Your task to perform on an android device: change the clock style Image 0: 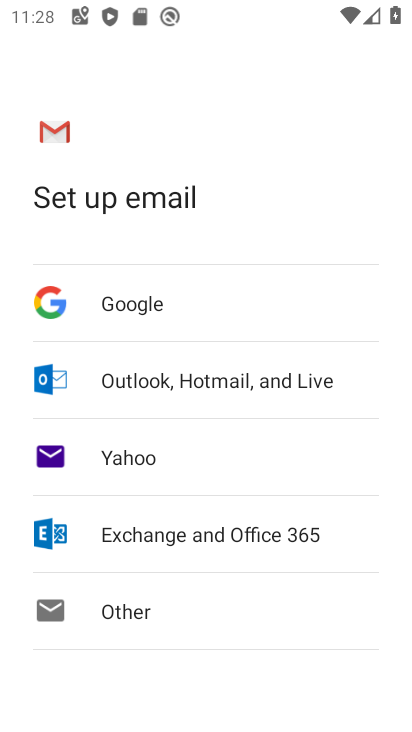
Step 0: press back button
Your task to perform on an android device: change the clock style Image 1: 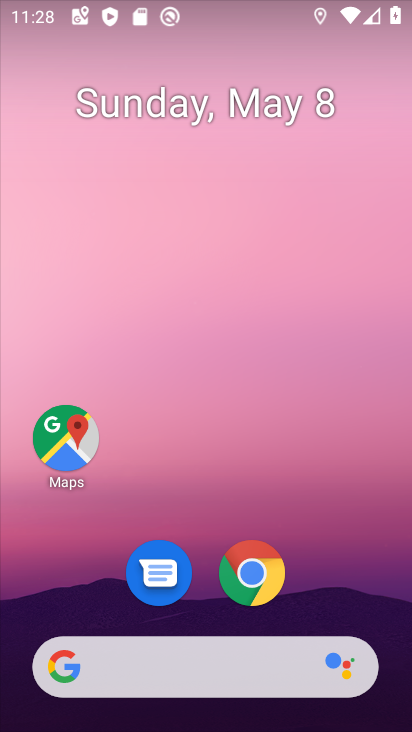
Step 1: drag from (349, 605) to (206, 20)
Your task to perform on an android device: change the clock style Image 2: 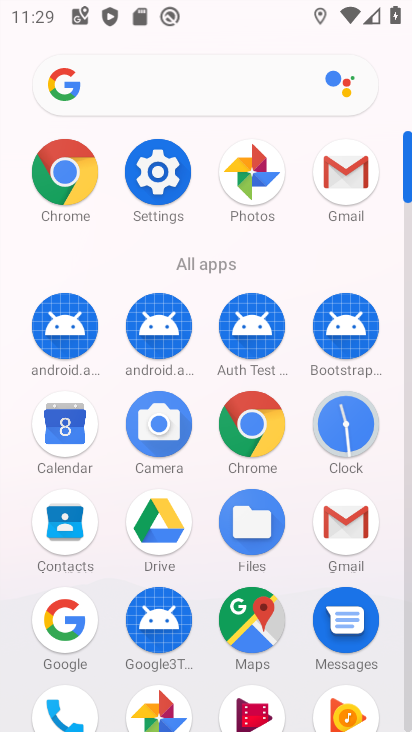
Step 2: click (345, 424)
Your task to perform on an android device: change the clock style Image 3: 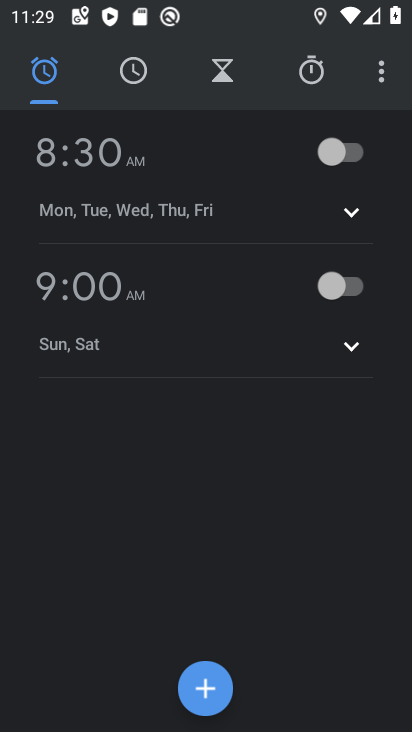
Step 3: drag from (380, 74) to (298, 144)
Your task to perform on an android device: change the clock style Image 4: 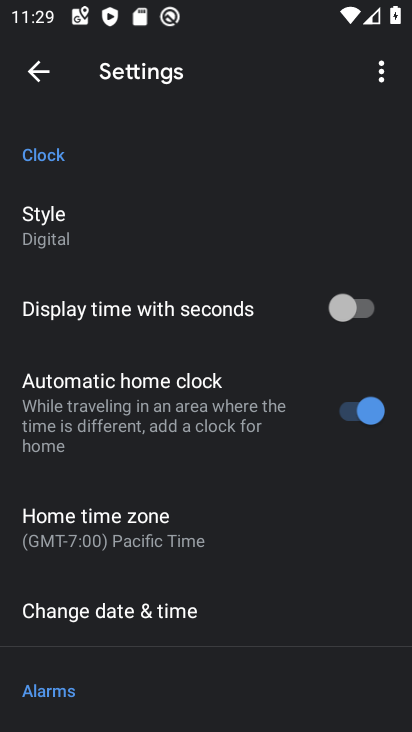
Step 4: click (126, 221)
Your task to perform on an android device: change the clock style Image 5: 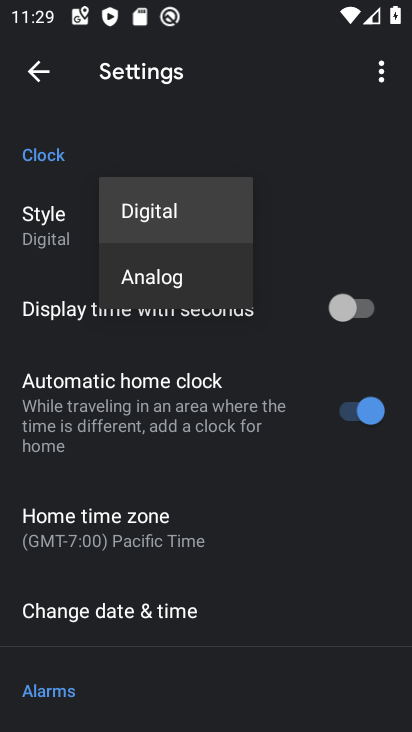
Step 5: click (150, 270)
Your task to perform on an android device: change the clock style Image 6: 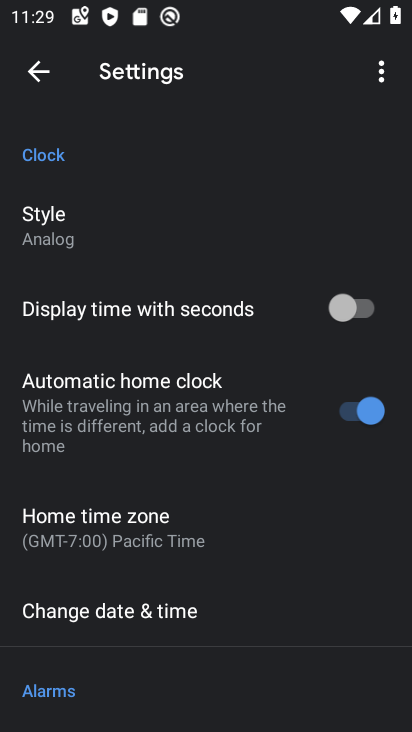
Step 6: task complete